Your task to perform on an android device: turn off sleep mode Image 0: 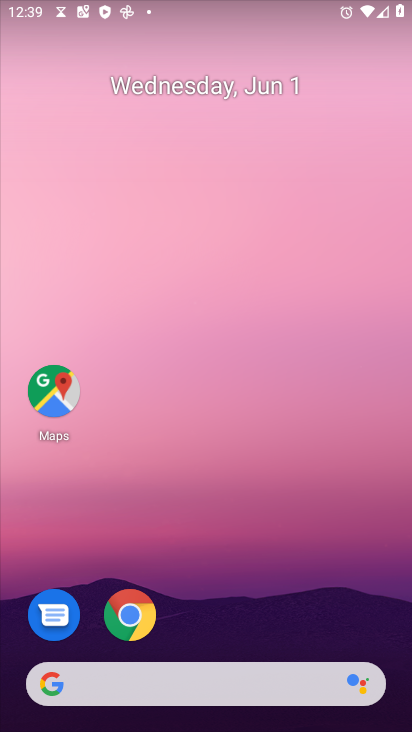
Step 0: drag from (256, 620) to (247, 61)
Your task to perform on an android device: turn off sleep mode Image 1: 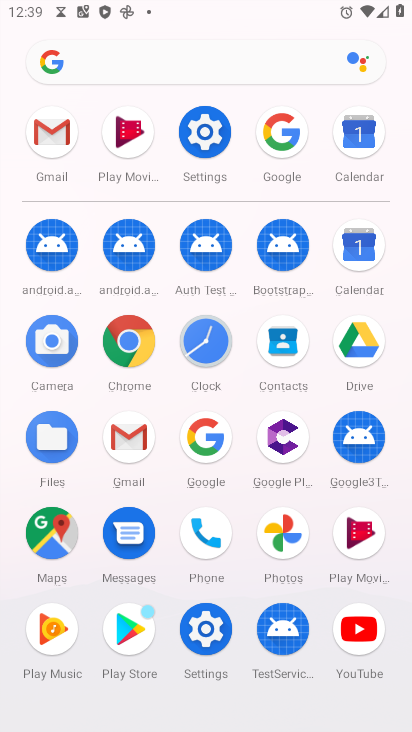
Step 1: click (210, 147)
Your task to perform on an android device: turn off sleep mode Image 2: 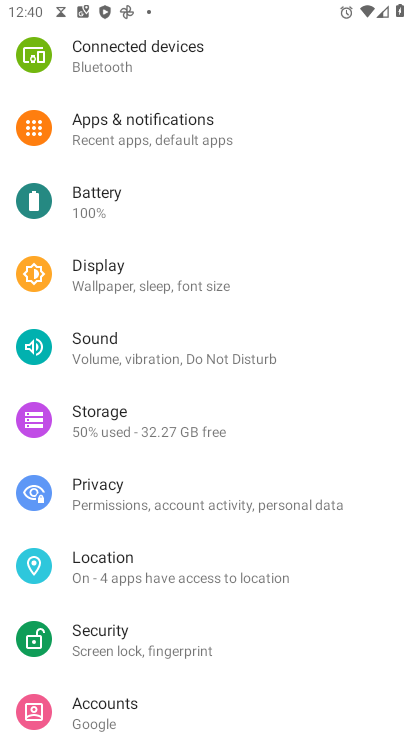
Step 2: click (86, 287)
Your task to perform on an android device: turn off sleep mode Image 3: 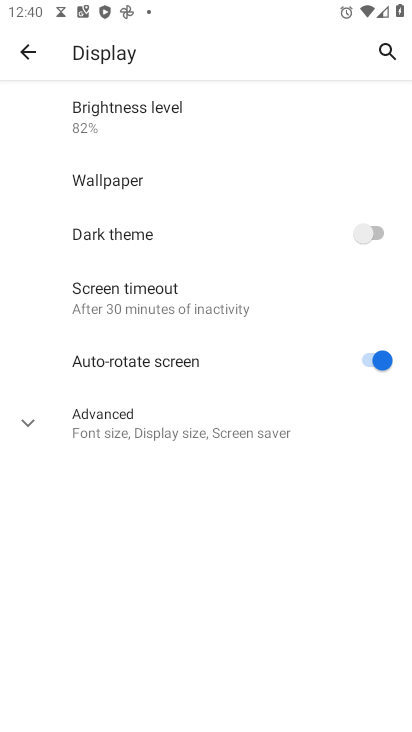
Step 3: click (86, 287)
Your task to perform on an android device: turn off sleep mode Image 4: 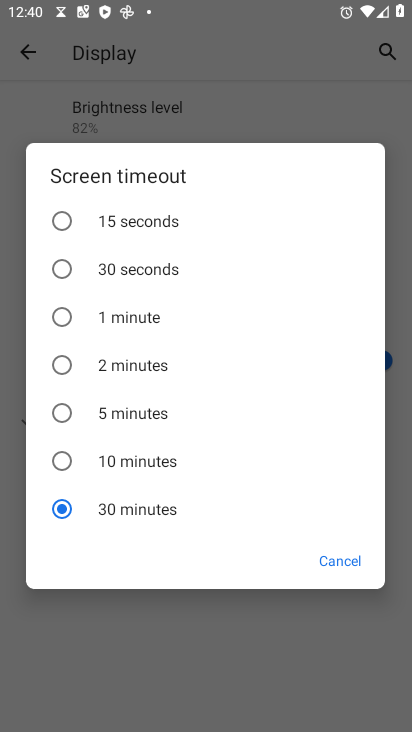
Step 4: task complete